Your task to perform on an android device: Go to Yahoo.com Image 0: 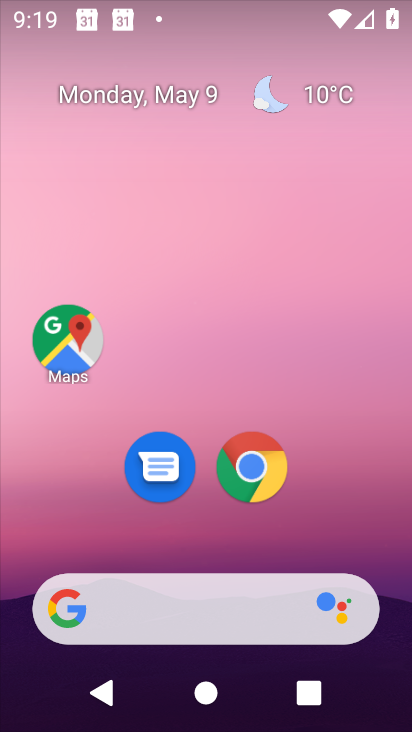
Step 0: click (261, 484)
Your task to perform on an android device: Go to Yahoo.com Image 1: 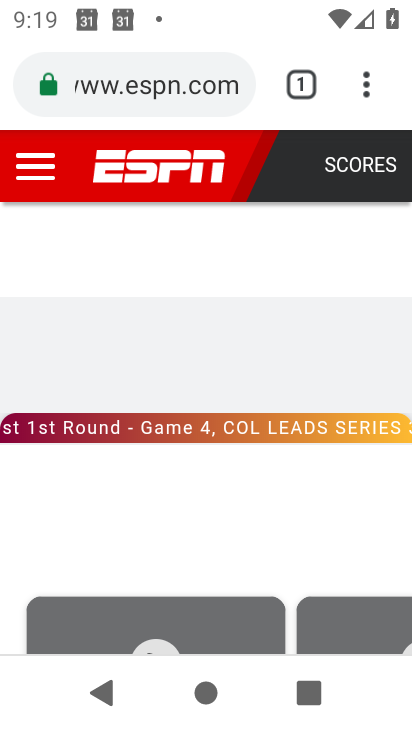
Step 1: click (163, 87)
Your task to perform on an android device: Go to Yahoo.com Image 2: 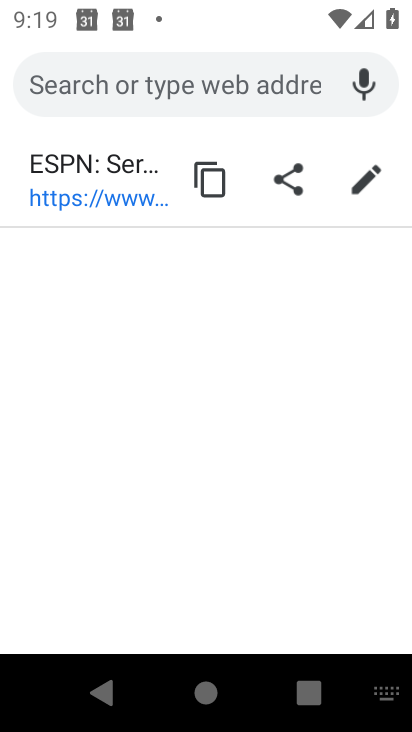
Step 2: type "yahoo.com"
Your task to perform on an android device: Go to Yahoo.com Image 3: 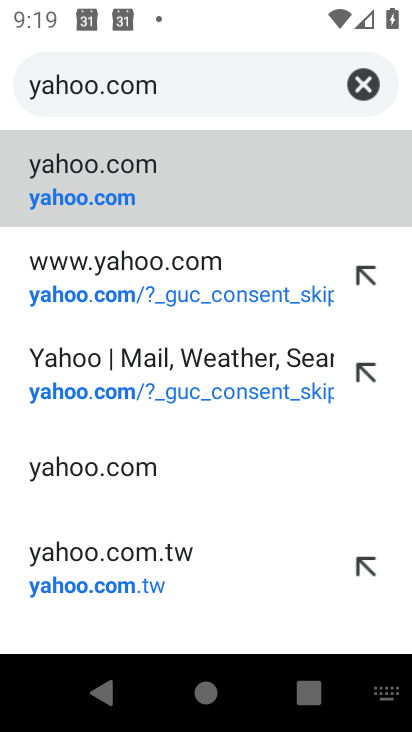
Step 3: click (99, 217)
Your task to perform on an android device: Go to Yahoo.com Image 4: 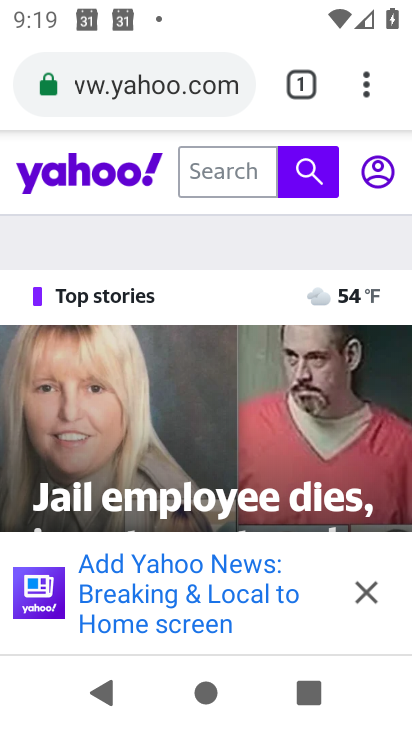
Step 4: task complete